Your task to perform on an android device: Search for vegetarian restaurants on Maps Image 0: 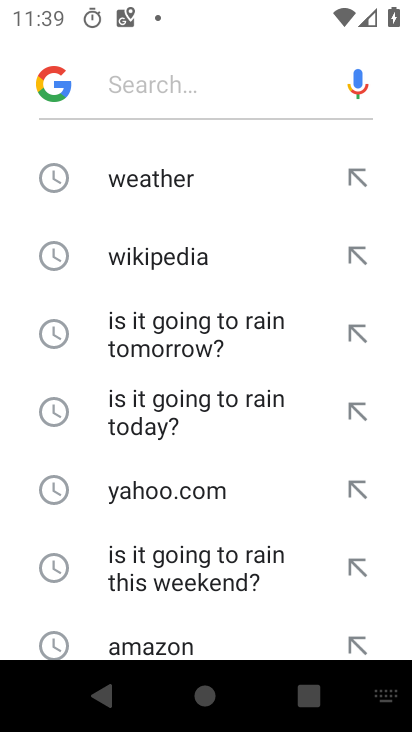
Step 0: press home button
Your task to perform on an android device: Search for vegetarian restaurants on Maps Image 1: 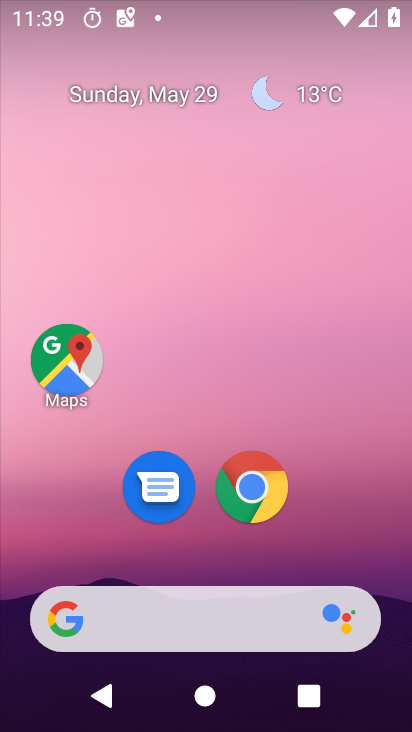
Step 1: click (62, 361)
Your task to perform on an android device: Search for vegetarian restaurants on Maps Image 2: 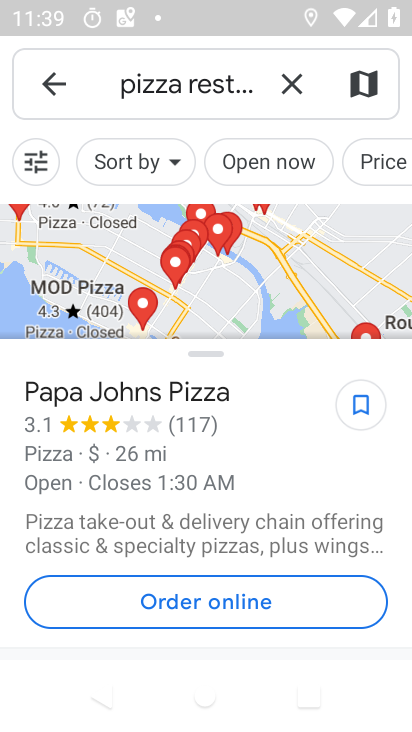
Step 2: click (293, 80)
Your task to perform on an android device: Search for vegetarian restaurants on Maps Image 3: 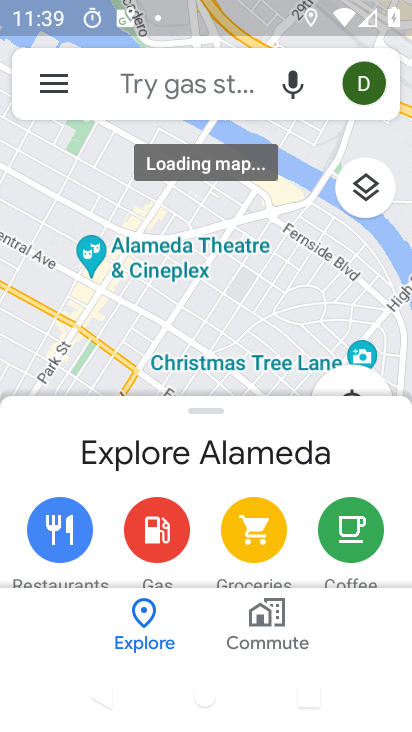
Step 3: type "vegetarian restaurants "
Your task to perform on an android device: Search for vegetarian restaurants on Maps Image 4: 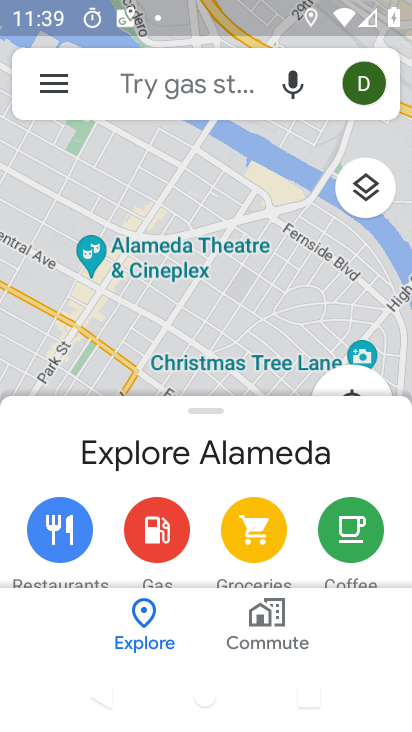
Step 4: click (117, 94)
Your task to perform on an android device: Search for vegetarian restaurants on Maps Image 5: 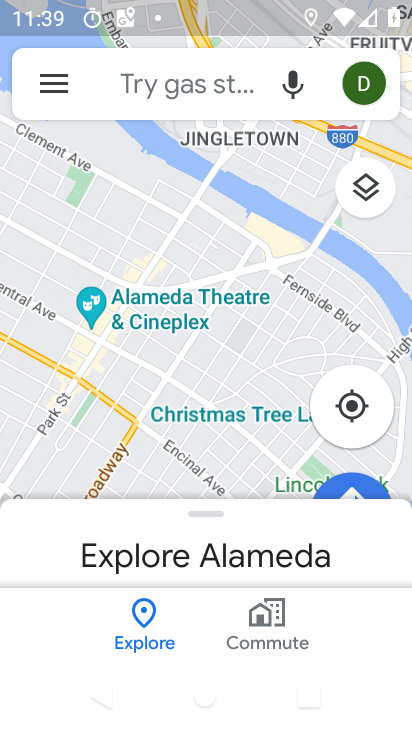
Step 5: click (117, 92)
Your task to perform on an android device: Search for vegetarian restaurants on Maps Image 6: 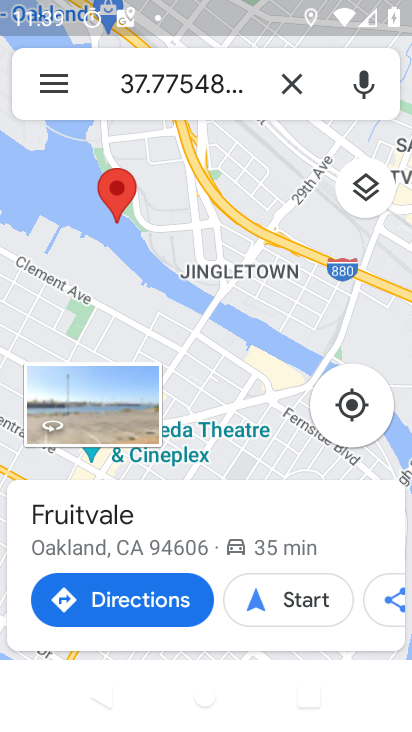
Step 6: click (288, 80)
Your task to perform on an android device: Search for vegetarian restaurants on Maps Image 7: 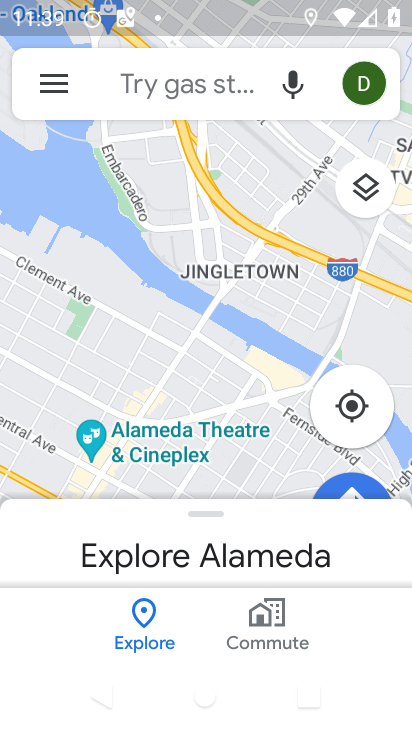
Step 7: click (173, 82)
Your task to perform on an android device: Search for vegetarian restaurants on Maps Image 8: 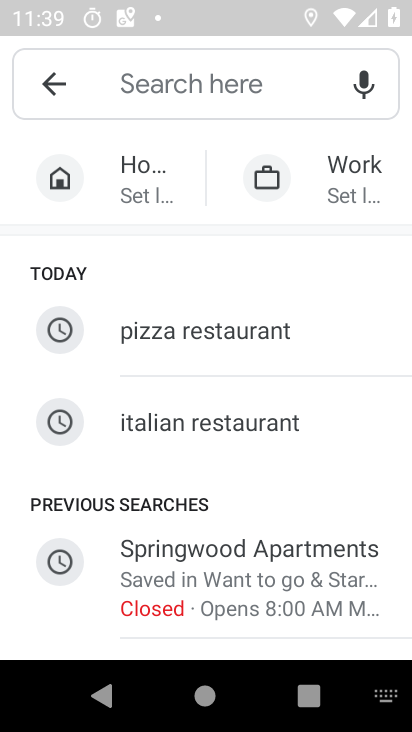
Step 8: type "vegetarian restaurants "
Your task to perform on an android device: Search for vegetarian restaurants on Maps Image 9: 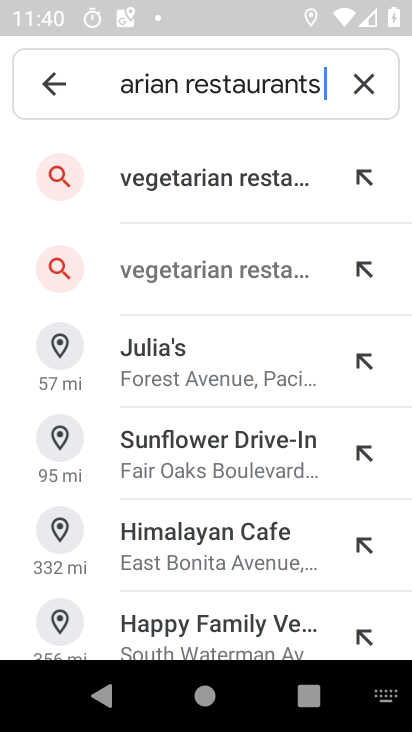
Step 9: click (214, 179)
Your task to perform on an android device: Search for vegetarian restaurants on Maps Image 10: 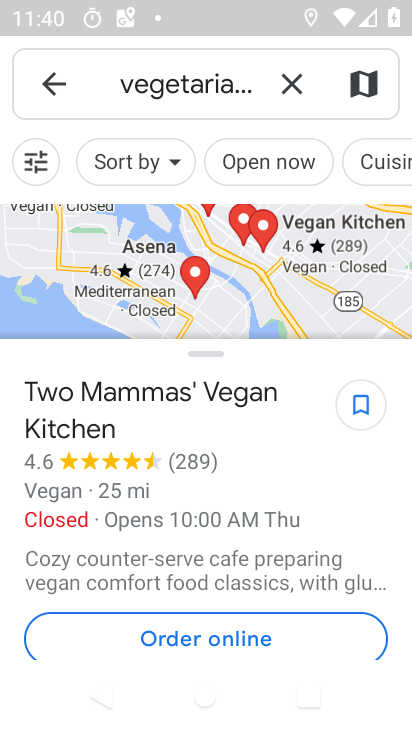
Step 10: task complete